Your task to perform on an android device: install app "Microsoft Authenticator" Image 0: 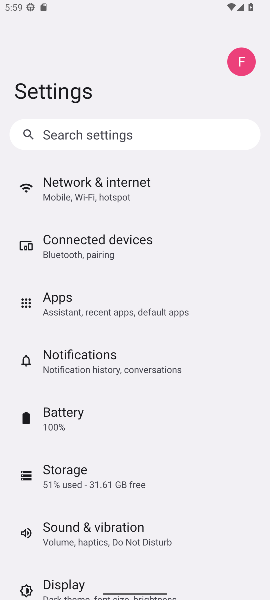
Step 0: press home button
Your task to perform on an android device: install app "Microsoft Authenticator" Image 1: 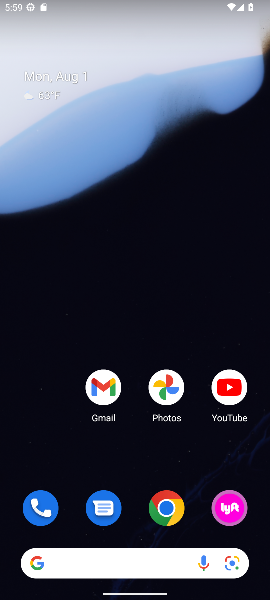
Step 1: drag from (145, 527) to (111, 100)
Your task to perform on an android device: install app "Microsoft Authenticator" Image 2: 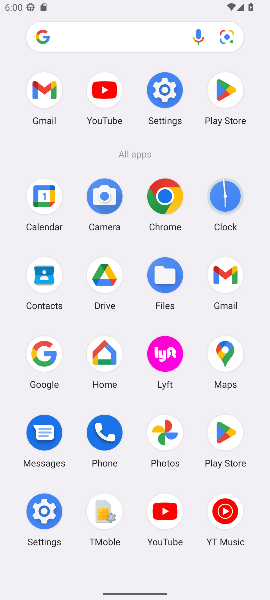
Step 2: click (230, 437)
Your task to perform on an android device: install app "Microsoft Authenticator" Image 3: 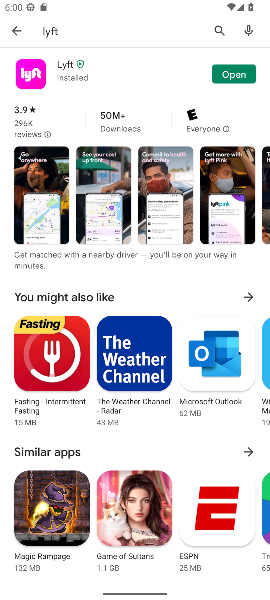
Step 3: click (5, 29)
Your task to perform on an android device: install app "Microsoft Authenticator" Image 4: 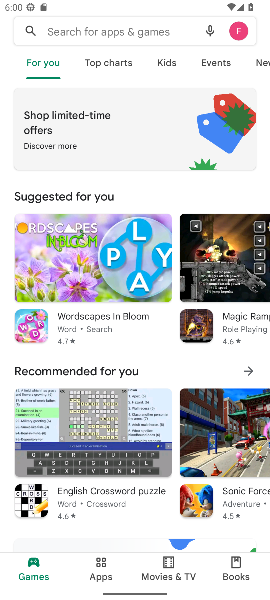
Step 4: click (131, 39)
Your task to perform on an android device: install app "Microsoft Authenticator" Image 5: 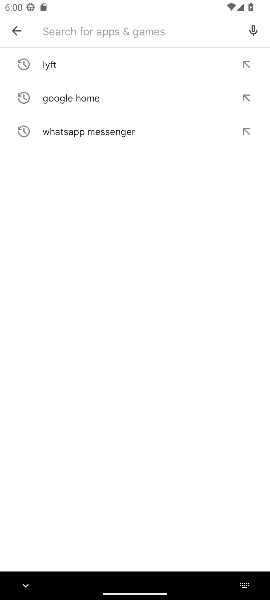
Step 5: type "Microsoft Authenticator"
Your task to perform on an android device: install app "Microsoft Authenticator" Image 6: 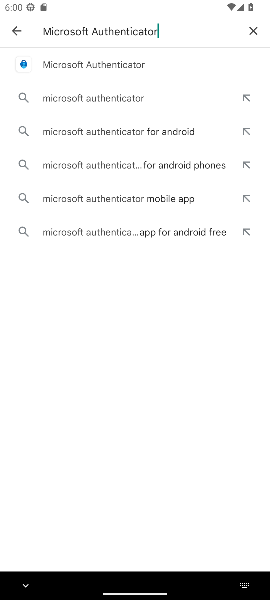
Step 6: type ""
Your task to perform on an android device: install app "Microsoft Authenticator" Image 7: 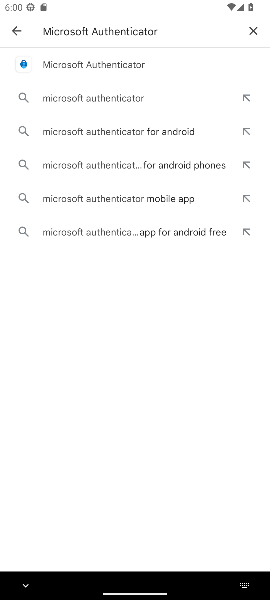
Step 7: click (128, 64)
Your task to perform on an android device: install app "Microsoft Authenticator" Image 8: 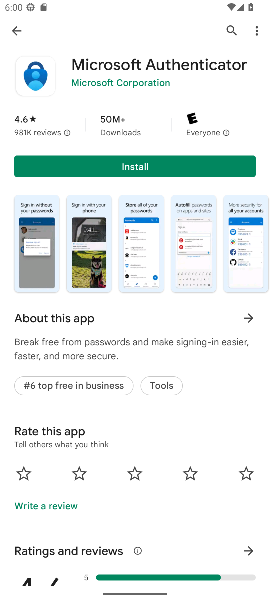
Step 8: click (64, 172)
Your task to perform on an android device: install app "Microsoft Authenticator" Image 9: 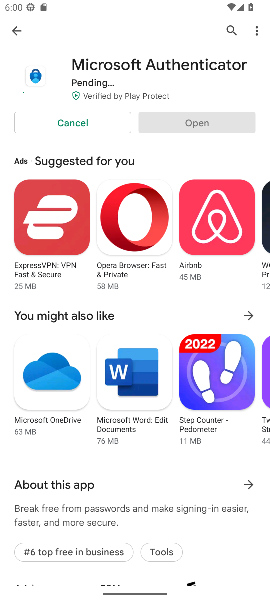
Step 9: task complete